Your task to perform on an android device: Open Amazon Image 0: 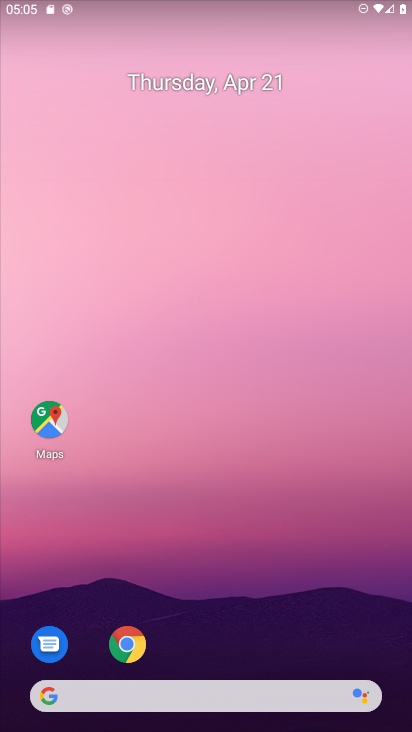
Step 0: click (137, 641)
Your task to perform on an android device: Open Amazon Image 1: 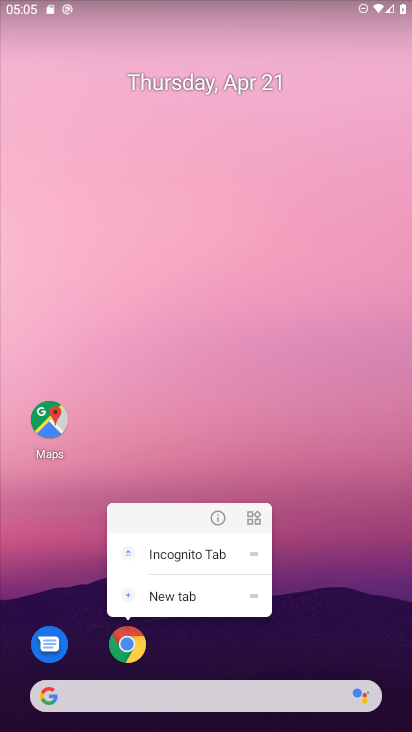
Step 1: drag from (336, 634) to (315, 101)
Your task to perform on an android device: Open Amazon Image 2: 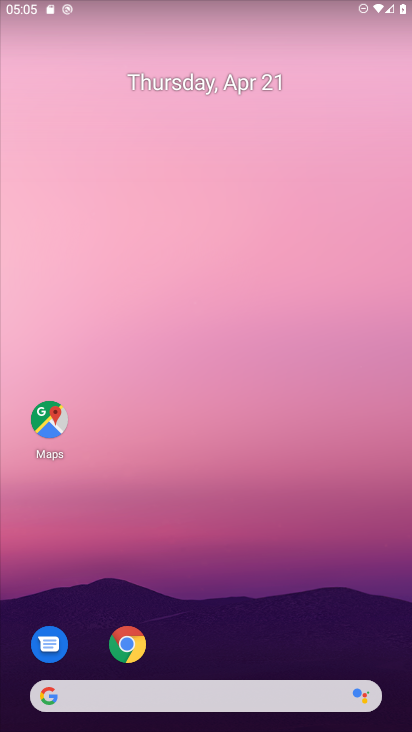
Step 2: drag from (302, 539) to (305, 176)
Your task to perform on an android device: Open Amazon Image 3: 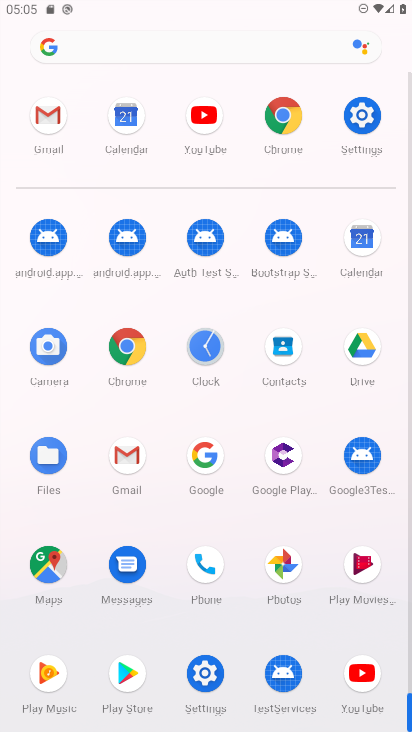
Step 3: click (289, 122)
Your task to perform on an android device: Open Amazon Image 4: 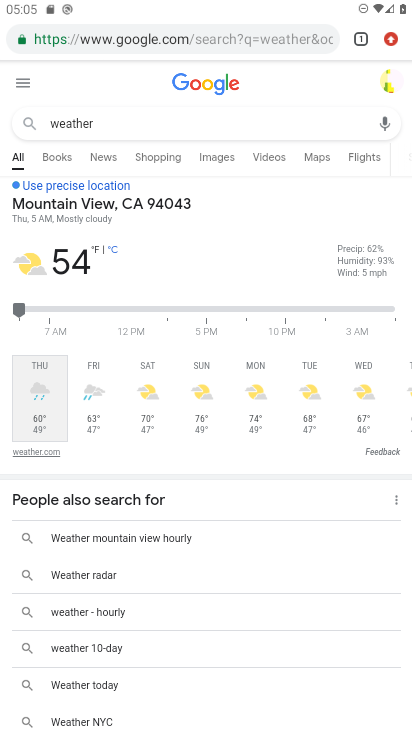
Step 4: click (270, 41)
Your task to perform on an android device: Open Amazon Image 5: 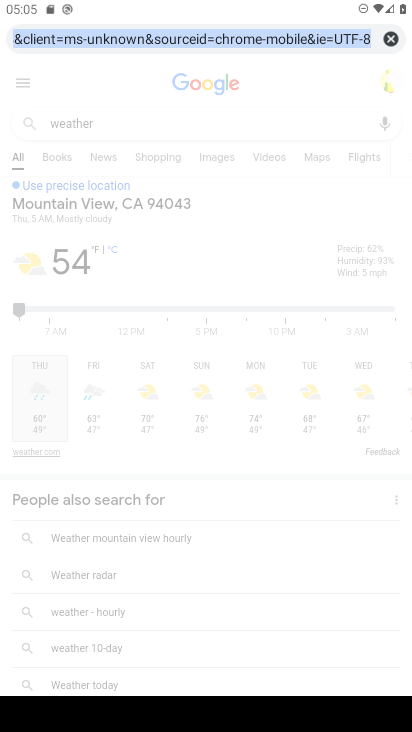
Step 5: type "amazon"
Your task to perform on an android device: Open Amazon Image 6: 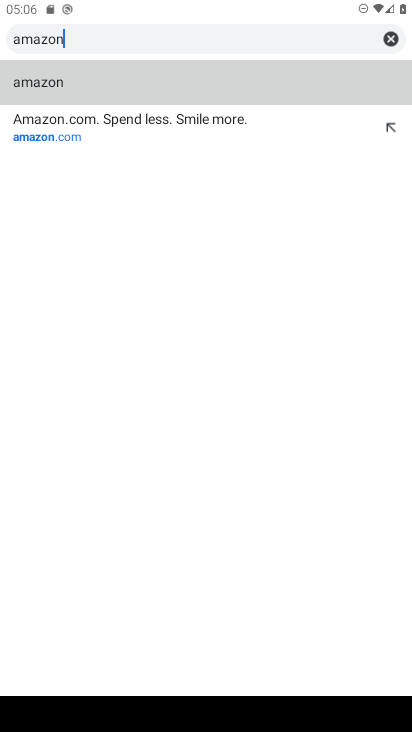
Step 6: click (40, 142)
Your task to perform on an android device: Open Amazon Image 7: 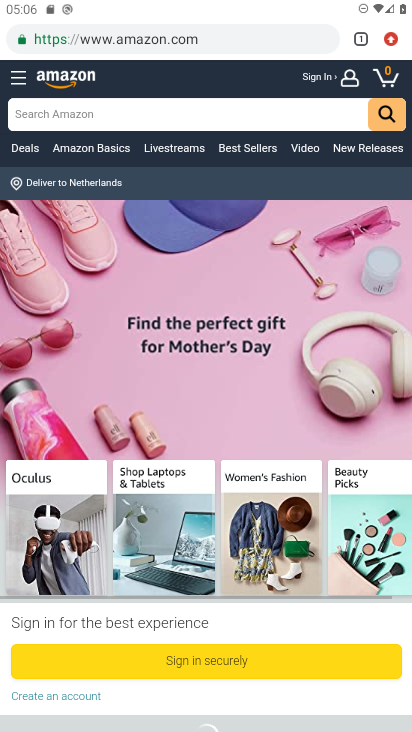
Step 7: task complete